Your task to perform on an android device: Search for Italian restaurants on Maps Image 0: 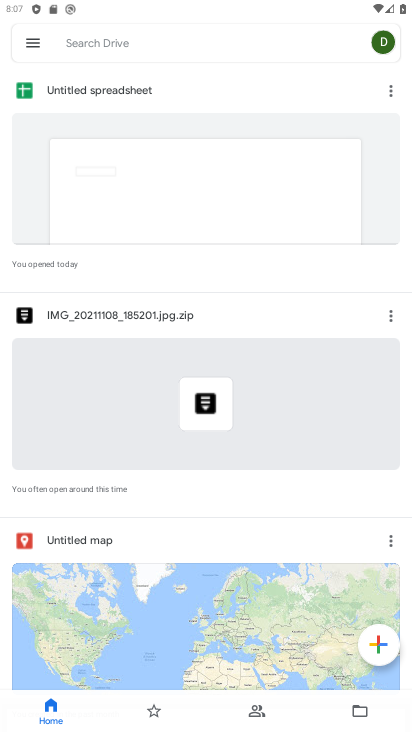
Step 0: press back button
Your task to perform on an android device: Search for Italian restaurants on Maps Image 1: 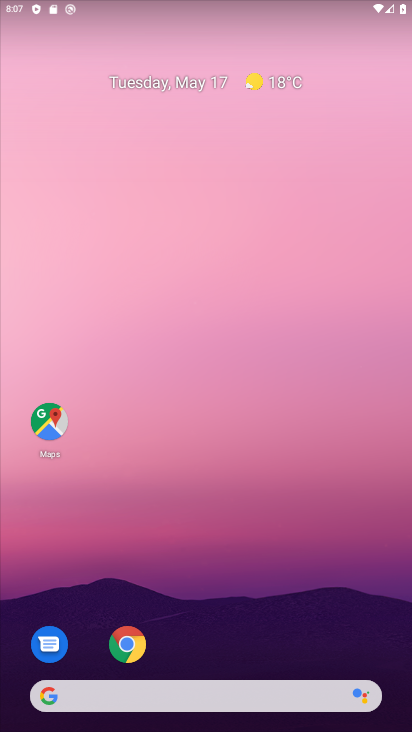
Step 1: click (50, 414)
Your task to perform on an android device: Search for Italian restaurants on Maps Image 2: 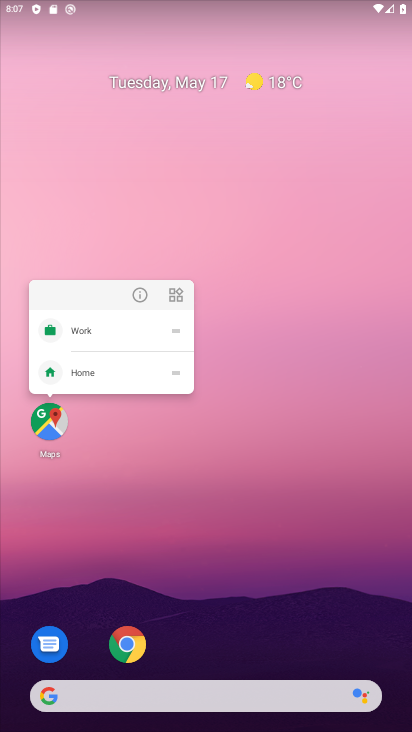
Step 2: click (48, 413)
Your task to perform on an android device: Search for Italian restaurants on Maps Image 3: 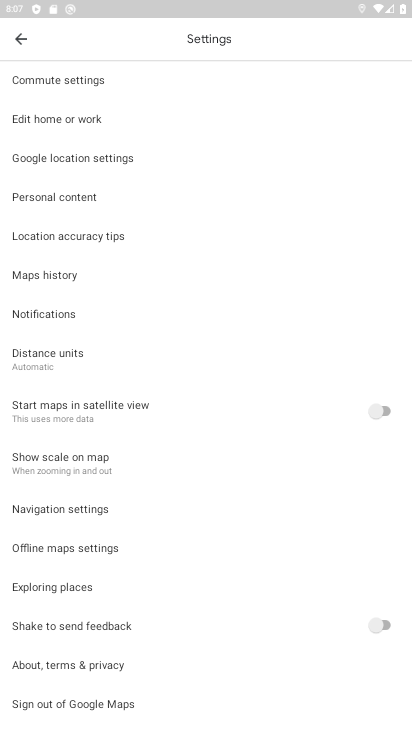
Step 3: click (24, 32)
Your task to perform on an android device: Search for Italian restaurants on Maps Image 4: 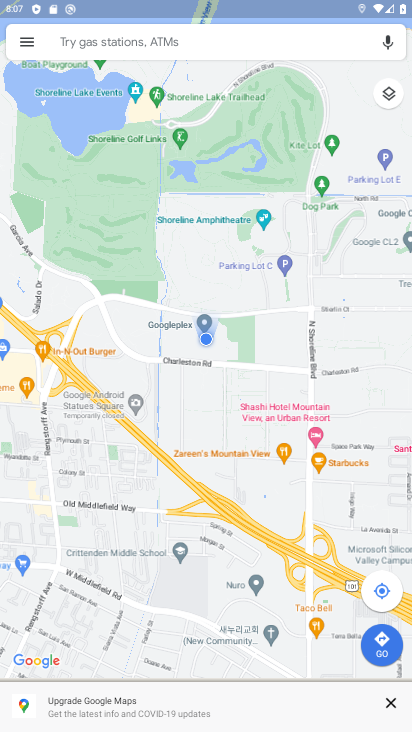
Step 4: click (113, 47)
Your task to perform on an android device: Search for Italian restaurants on Maps Image 5: 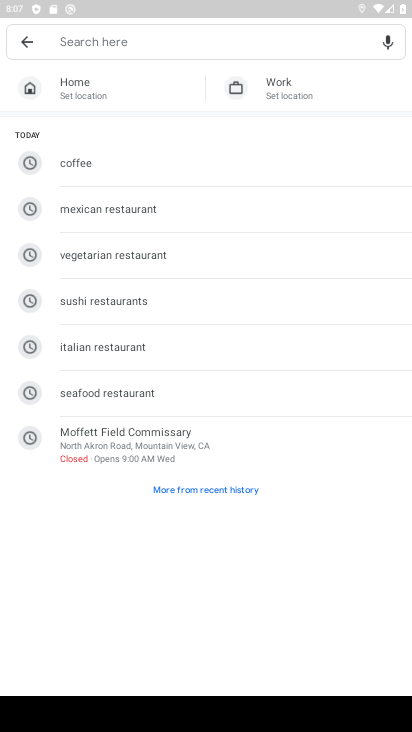
Step 5: click (95, 350)
Your task to perform on an android device: Search for Italian restaurants on Maps Image 6: 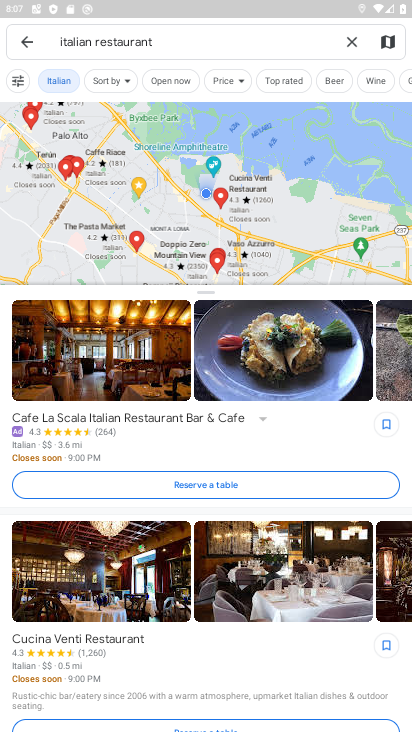
Step 6: task complete